Your task to perform on an android device: Open Chrome and go to the settings page Image 0: 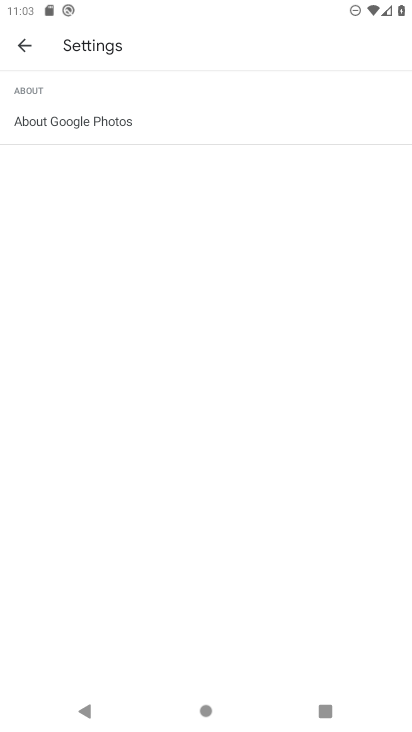
Step 0: press home button
Your task to perform on an android device: Open Chrome and go to the settings page Image 1: 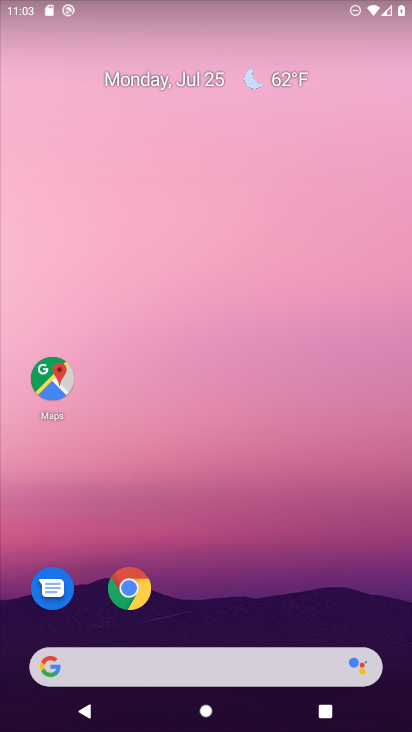
Step 1: click (123, 590)
Your task to perform on an android device: Open Chrome and go to the settings page Image 2: 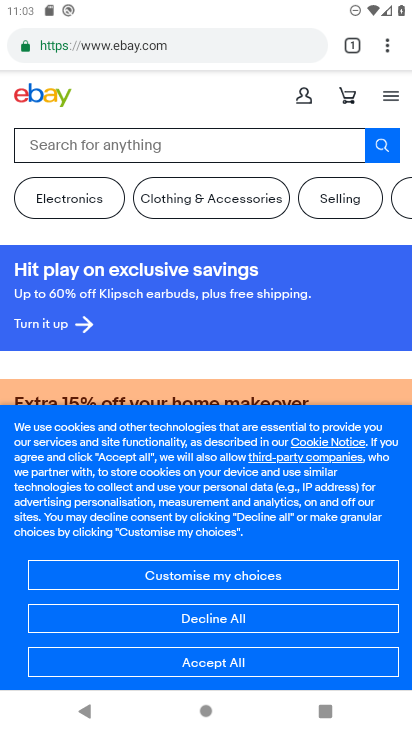
Step 2: click (389, 45)
Your task to perform on an android device: Open Chrome and go to the settings page Image 3: 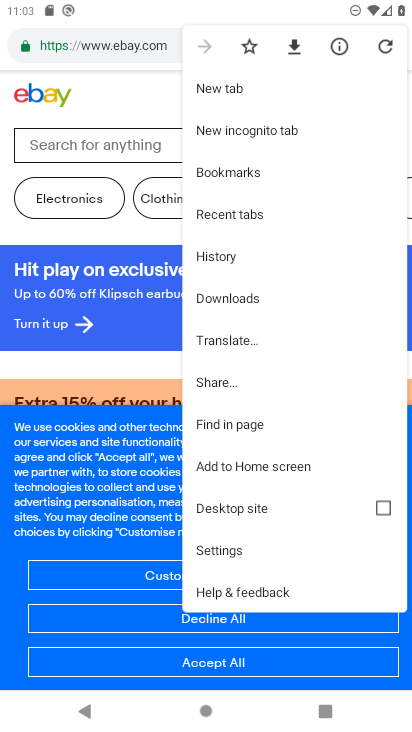
Step 3: click (216, 551)
Your task to perform on an android device: Open Chrome and go to the settings page Image 4: 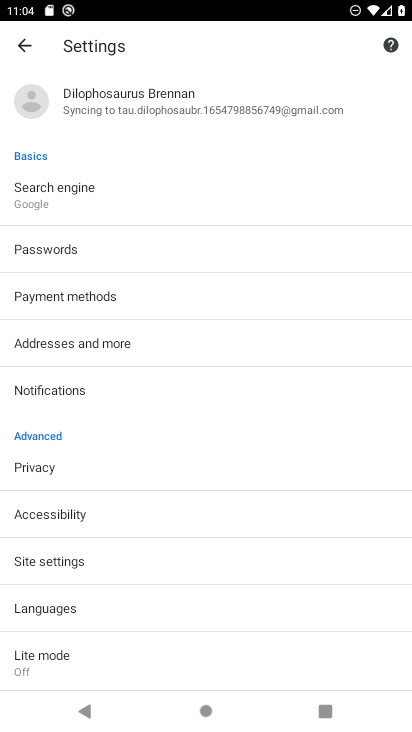
Step 4: task complete